Your task to perform on an android device: Go to eBay Image 0: 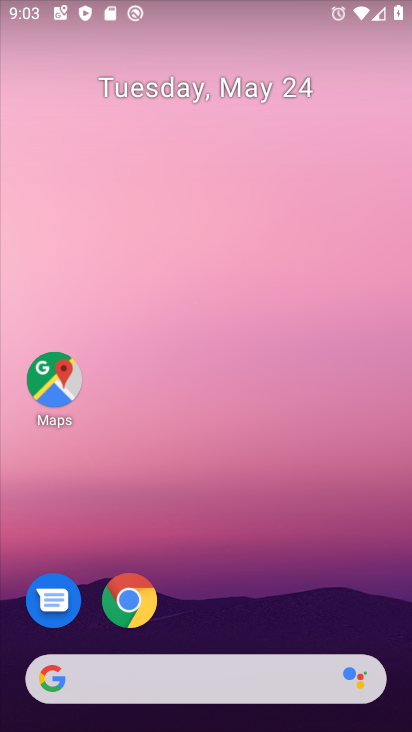
Step 0: click (129, 598)
Your task to perform on an android device: Go to eBay Image 1: 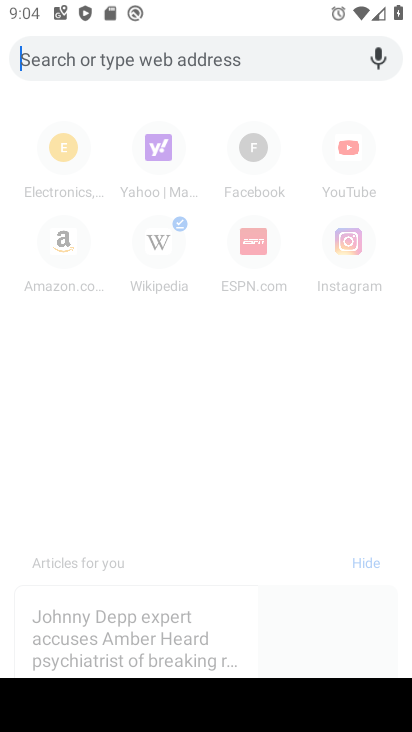
Step 1: type "eBay"
Your task to perform on an android device: Go to eBay Image 2: 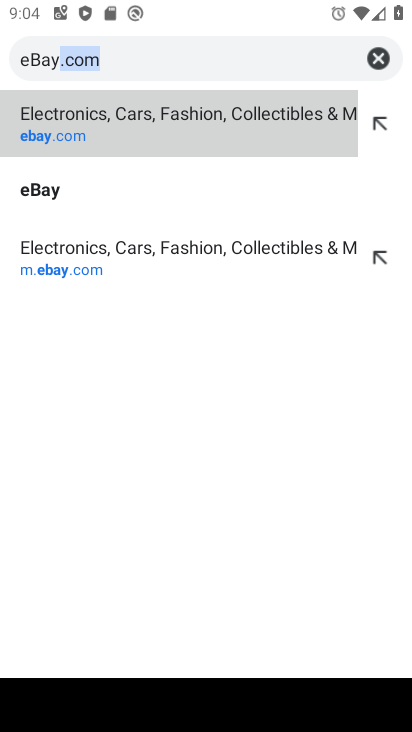
Step 2: click (150, 120)
Your task to perform on an android device: Go to eBay Image 3: 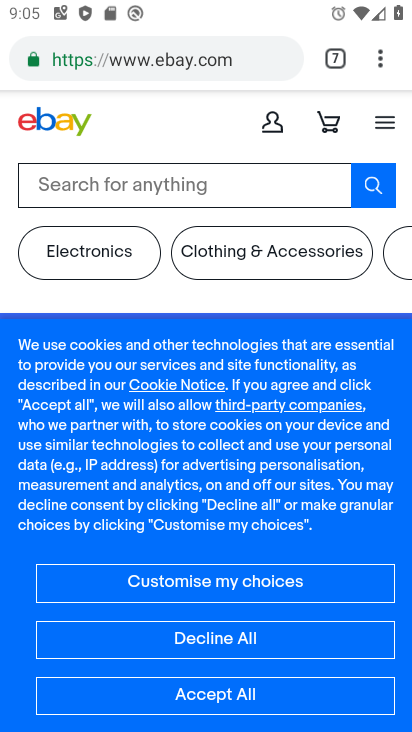
Step 3: task complete